Your task to perform on an android device: Go to wifi settings Image 0: 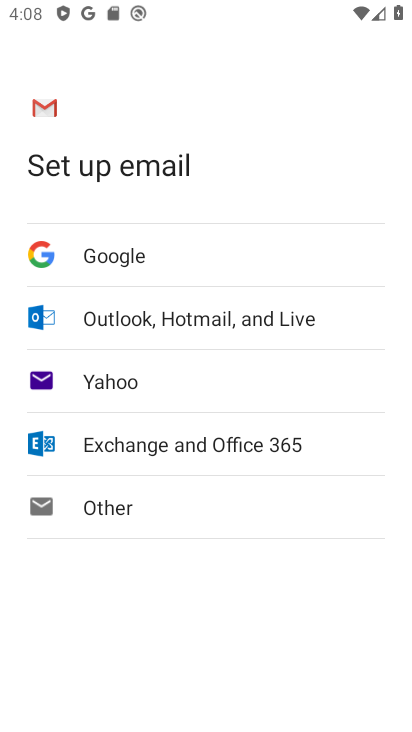
Step 0: press home button
Your task to perform on an android device: Go to wifi settings Image 1: 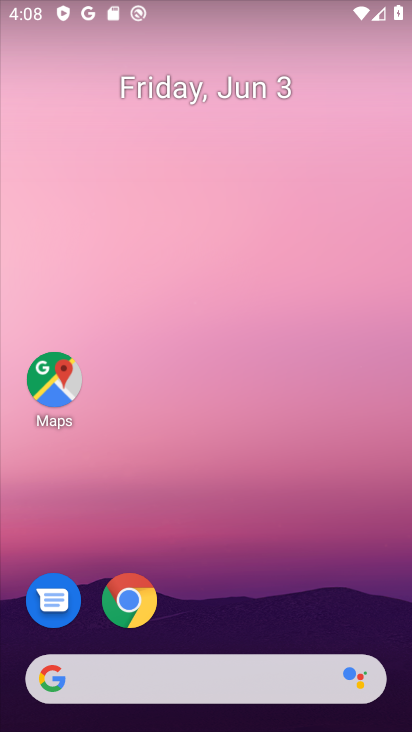
Step 1: drag from (399, 681) to (287, 4)
Your task to perform on an android device: Go to wifi settings Image 2: 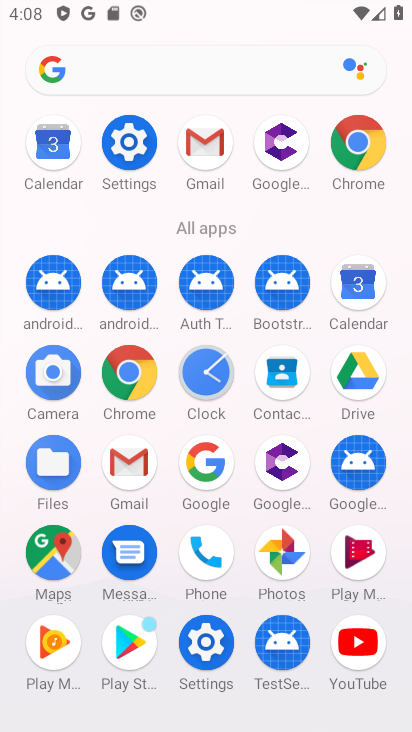
Step 2: click (140, 152)
Your task to perform on an android device: Go to wifi settings Image 3: 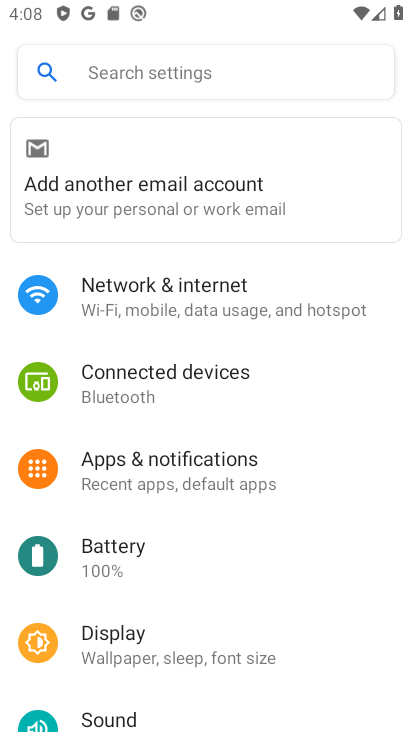
Step 3: click (145, 294)
Your task to perform on an android device: Go to wifi settings Image 4: 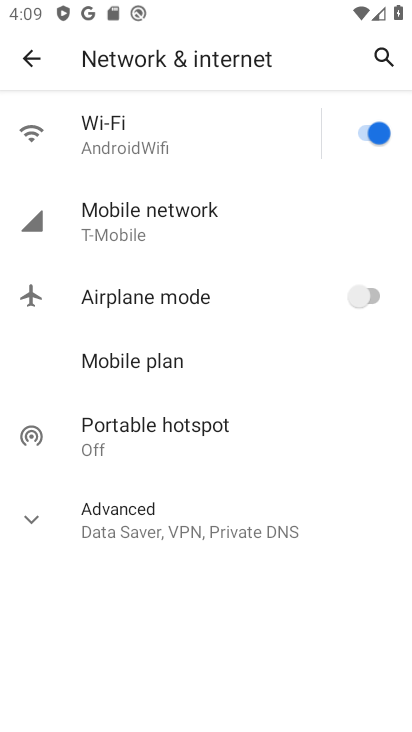
Step 4: click (218, 147)
Your task to perform on an android device: Go to wifi settings Image 5: 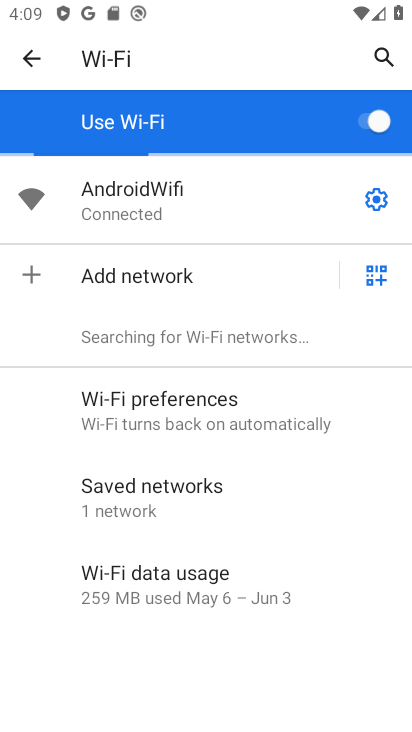
Step 5: click (370, 193)
Your task to perform on an android device: Go to wifi settings Image 6: 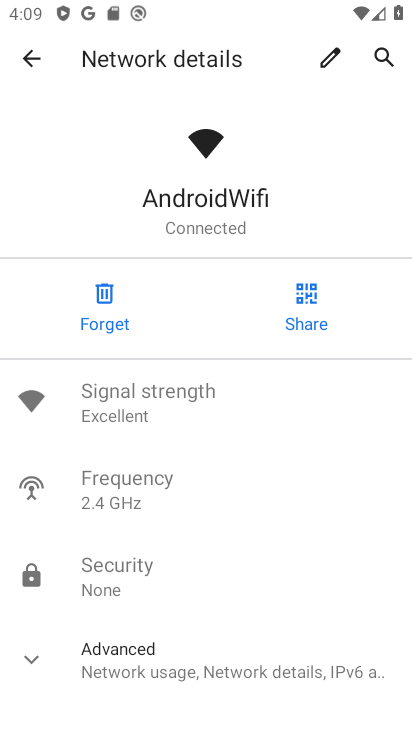
Step 6: task complete